Your task to perform on an android device: find snoozed emails in the gmail app Image 0: 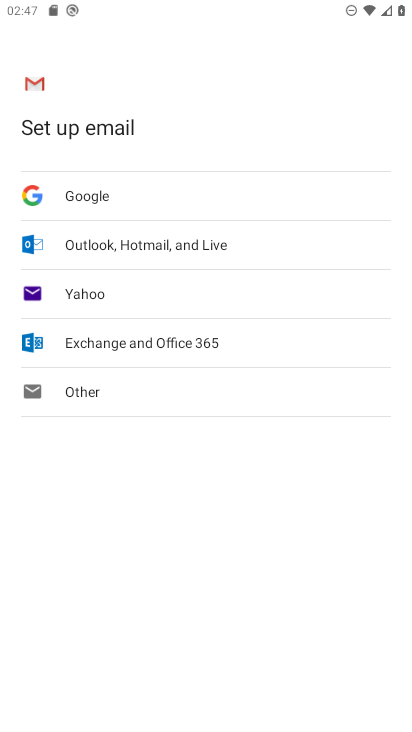
Step 0: press home button
Your task to perform on an android device: find snoozed emails in the gmail app Image 1: 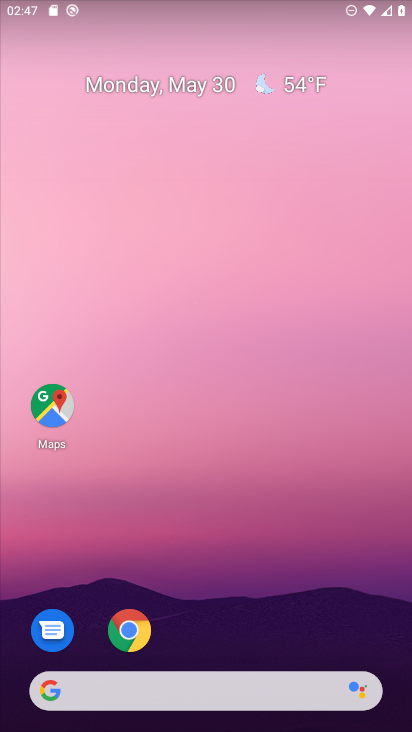
Step 1: drag from (216, 663) to (353, 228)
Your task to perform on an android device: find snoozed emails in the gmail app Image 2: 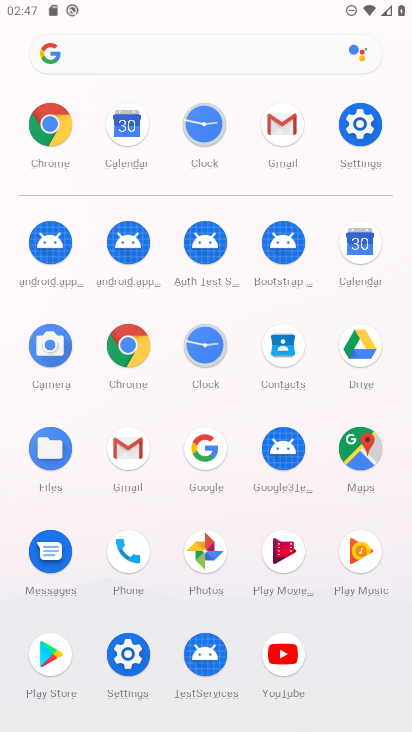
Step 2: click (282, 122)
Your task to perform on an android device: find snoozed emails in the gmail app Image 3: 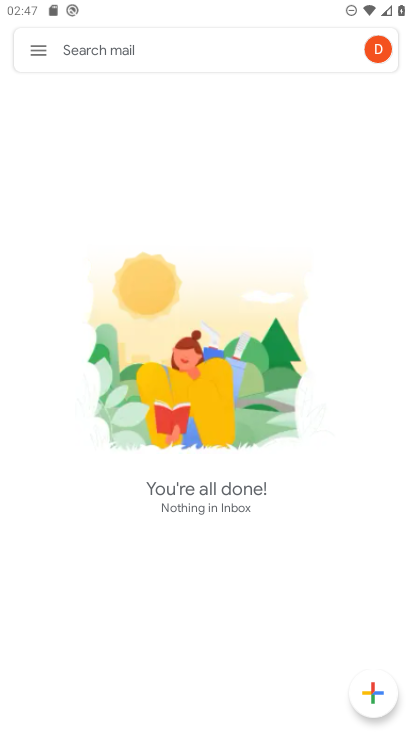
Step 3: click (37, 53)
Your task to perform on an android device: find snoozed emails in the gmail app Image 4: 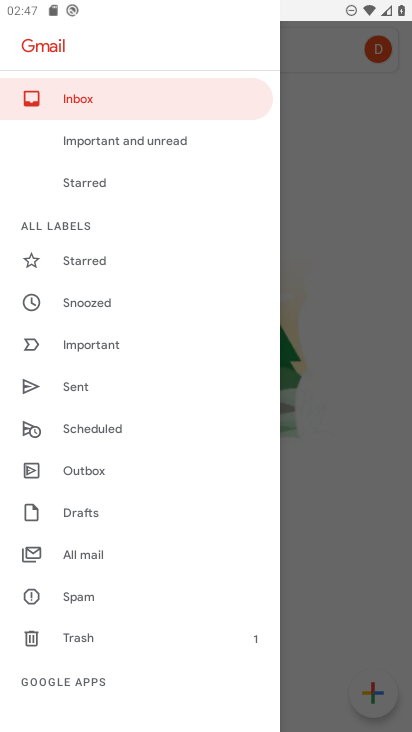
Step 4: click (81, 300)
Your task to perform on an android device: find snoozed emails in the gmail app Image 5: 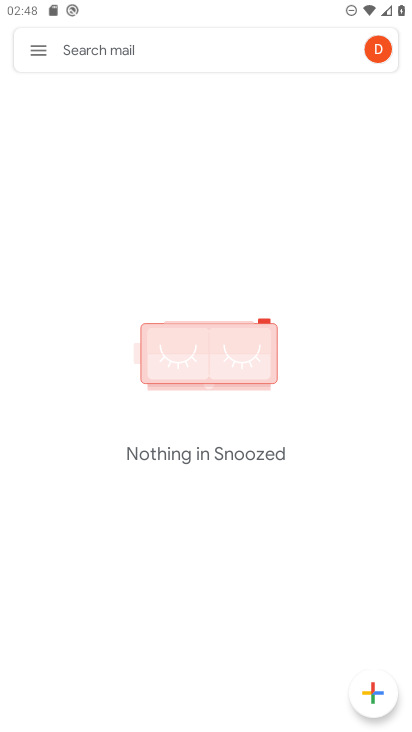
Step 5: task complete